Your task to perform on an android device: Set an alarm for 1pm Image 0: 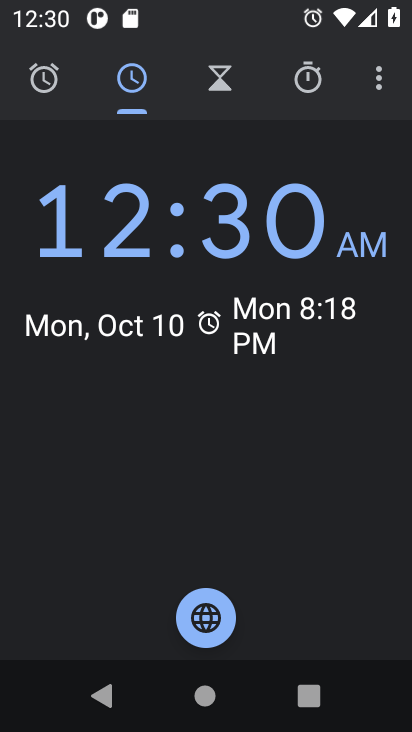
Step 0: click (47, 80)
Your task to perform on an android device: Set an alarm for 1pm Image 1: 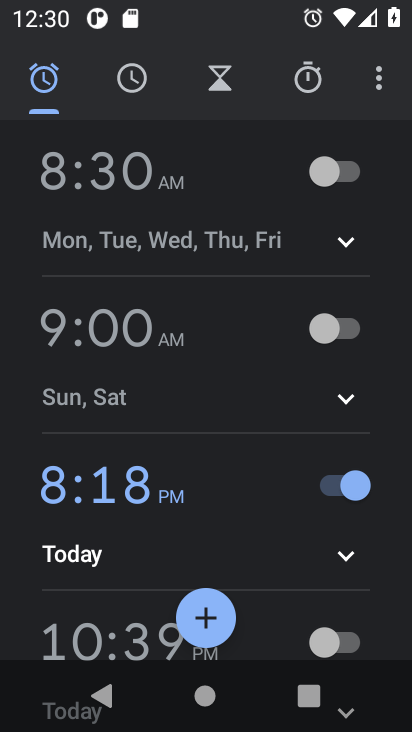
Step 1: click (210, 622)
Your task to perform on an android device: Set an alarm for 1pm Image 2: 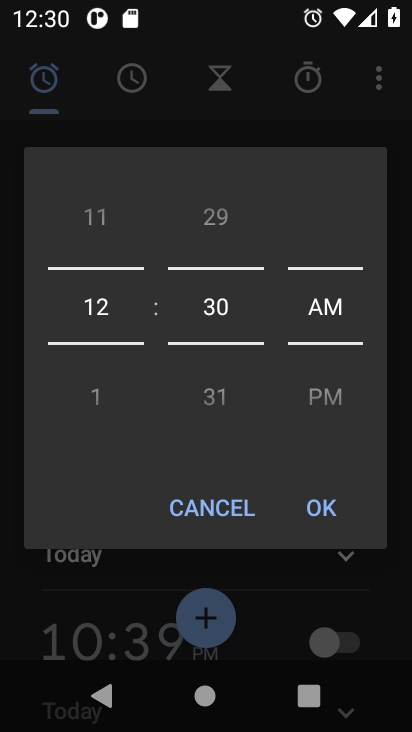
Step 2: drag from (83, 374) to (106, 282)
Your task to perform on an android device: Set an alarm for 1pm Image 3: 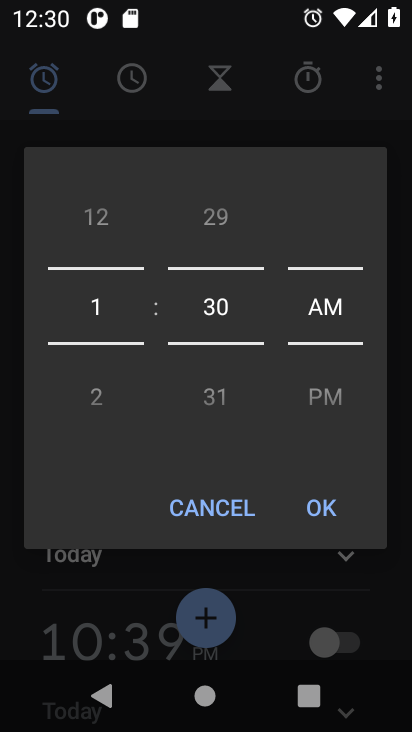
Step 3: drag from (211, 205) to (206, 417)
Your task to perform on an android device: Set an alarm for 1pm Image 4: 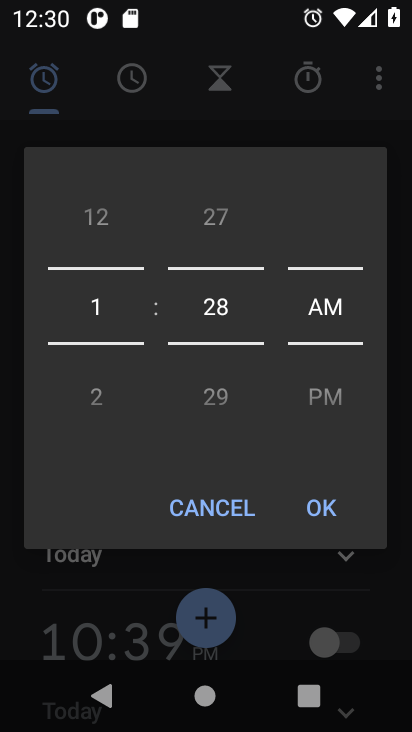
Step 4: drag from (217, 196) to (219, 428)
Your task to perform on an android device: Set an alarm for 1pm Image 5: 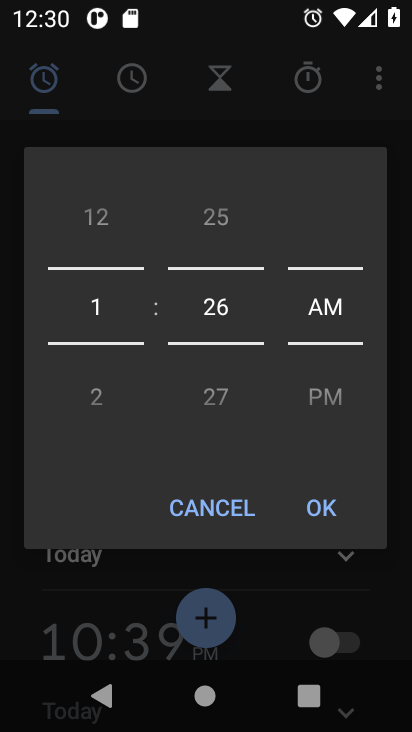
Step 5: drag from (220, 220) to (192, 410)
Your task to perform on an android device: Set an alarm for 1pm Image 6: 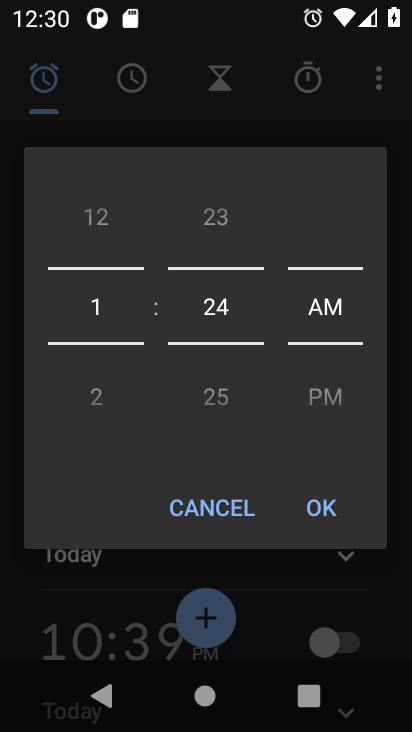
Step 6: drag from (222, 217) to (203, 389)
Your task to perform on an android device: Set an alarm for 1pm Image 7: 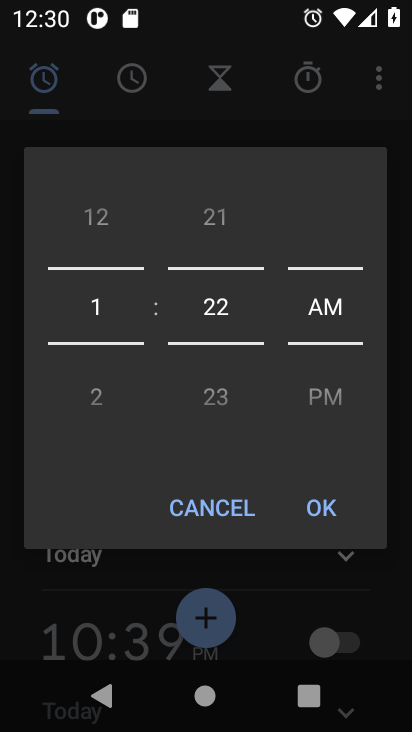
Step 7: drag from (223, 205) to (210, 402)
Your task to perform on an android device: Set an alarm for 1pm Image 8: 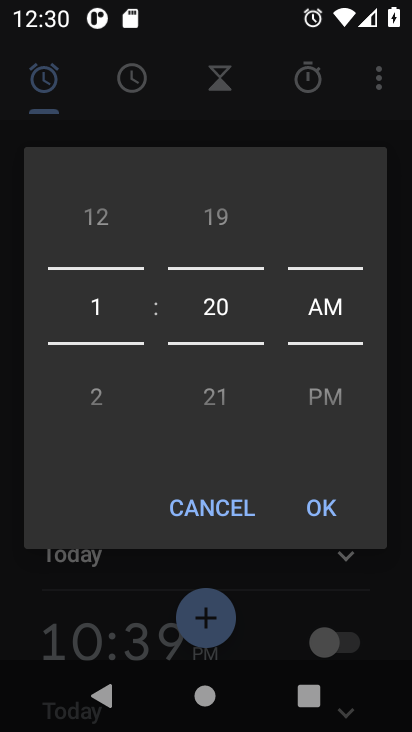
Step 8: drag from (226, 213) to (205, 395)
Your task to perform on an android device: Set an alarm for 1pm Image 9: 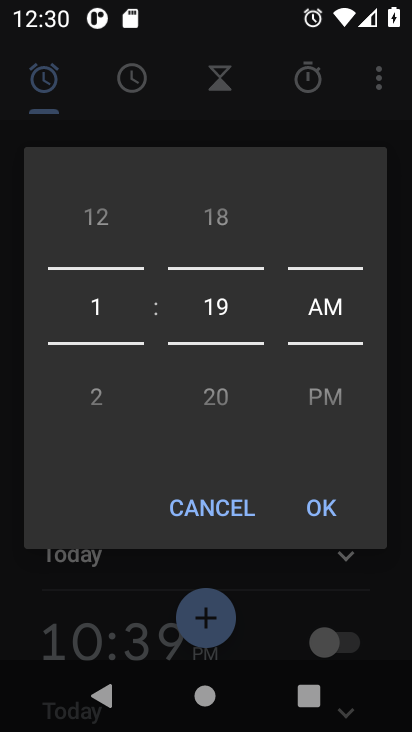
Step 9: drag from (225, 223) to (217, 402)
Your task to perform on an android device: Set an alarm for 1pm Image 10: 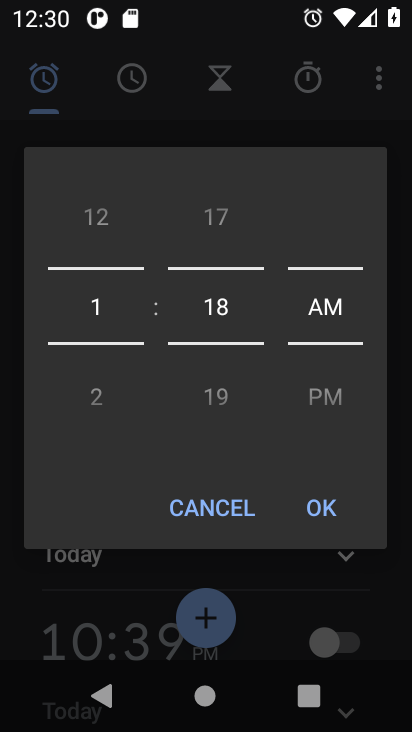
Step 10: drag from (222, 216) to (232, 411)
Your task to perform on an android device: Set an alarm for 1pm Image 11: 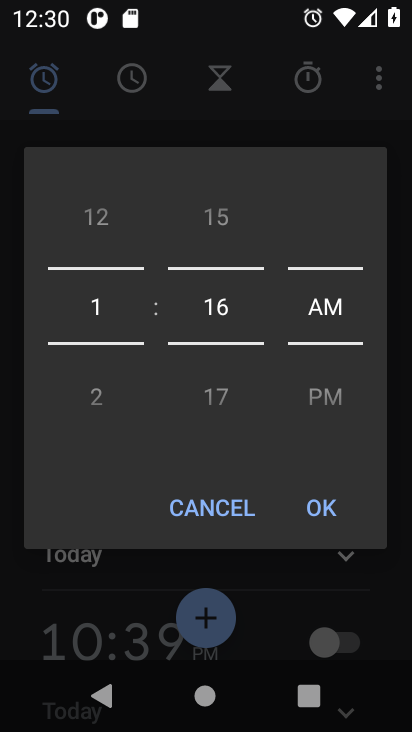
Step 11: drag from (221, 222) to (189, 404)
Your task to perform on an android device: Set an alarm for 1pm Image 12: 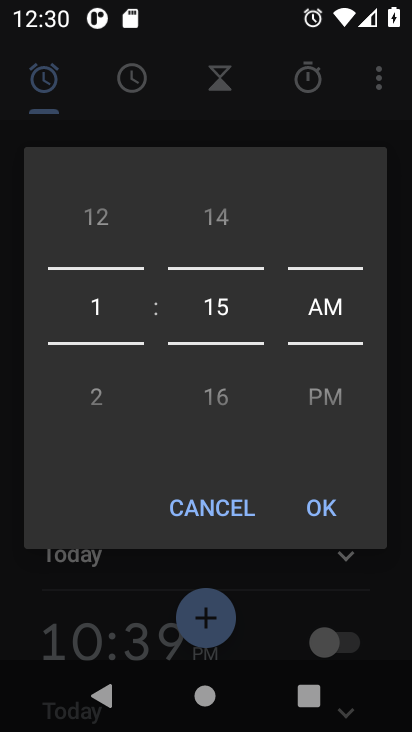
Step 12: drag from (221, 220) to (206, 498)
Your task to perform on an android device: Set an alarm for 1pm Image 13: 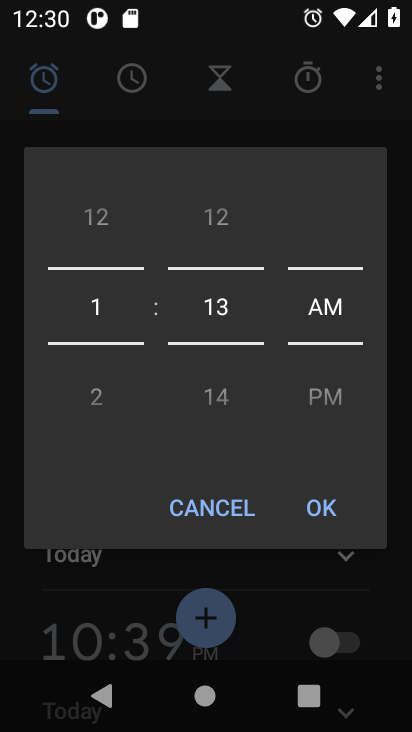
Step 13: drag from (224, 220) to (219, 426)
Your task to perform on an android device: Set an alarm for 1pm Image 14: 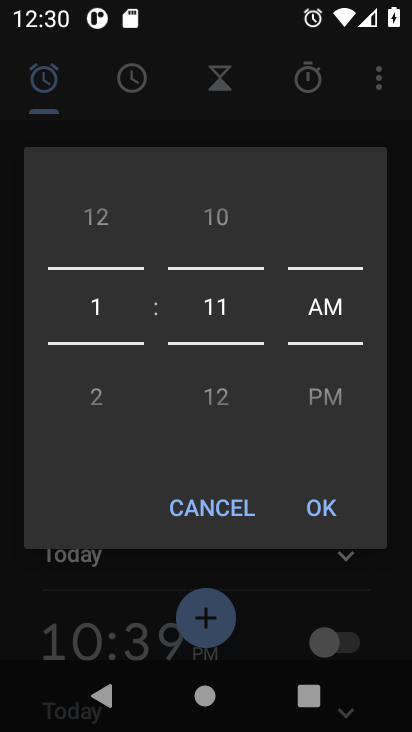
Step 14: drag from (214, 214) to (203, 368)
Your task to perform on an android device: Set an alarm for 1pm Image 15: 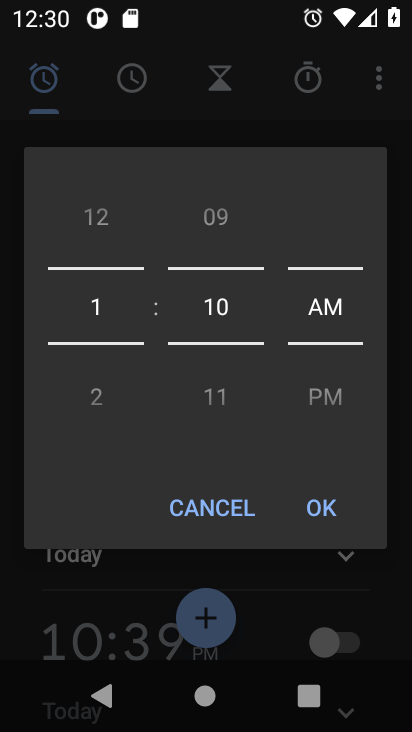
Step 15: drag from (217, 216) to (208, 389)
Your task to perform on an android device: Set an alarm for 1pm Image 16: 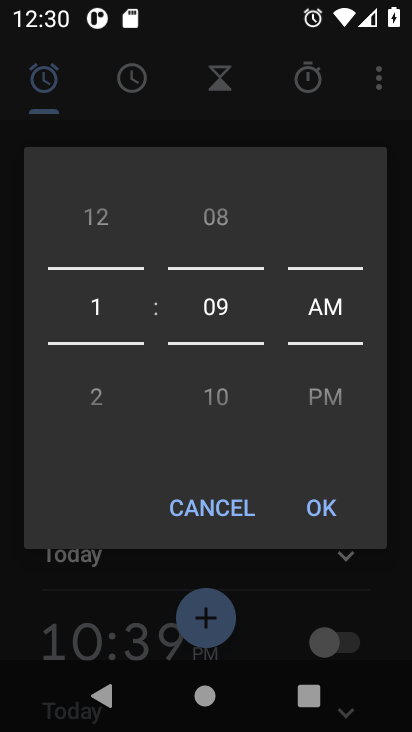
Step 16: drag from (209, 212) to (188, 415)
Your task to perform on an android device: Set an alarm for 1pm Image 17: 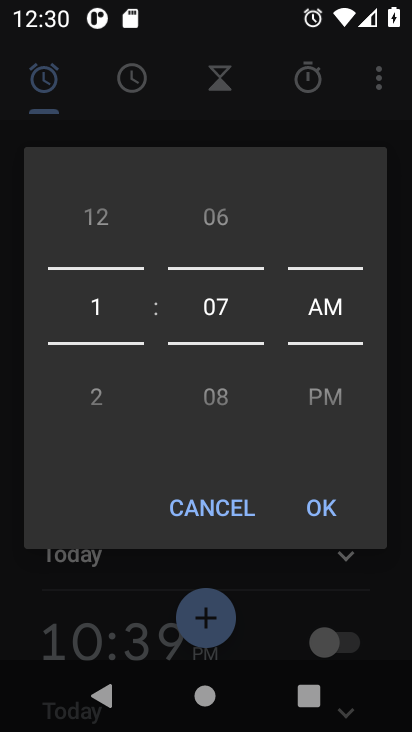
Step 17: drag from (219, 221) to (202, 393)
Your task to perform on an android device: Set an alarm for 1pm Image 18: 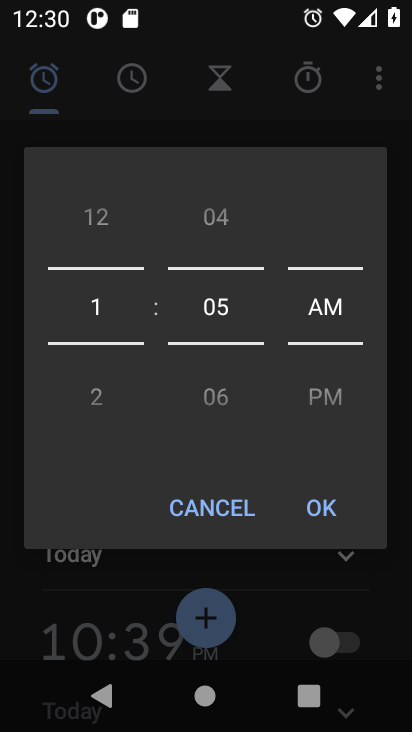
Step 18: drag from (213, 216) to (239, 441)
Your task to perform on an android device: Set an alarm for 1pm Image 19: 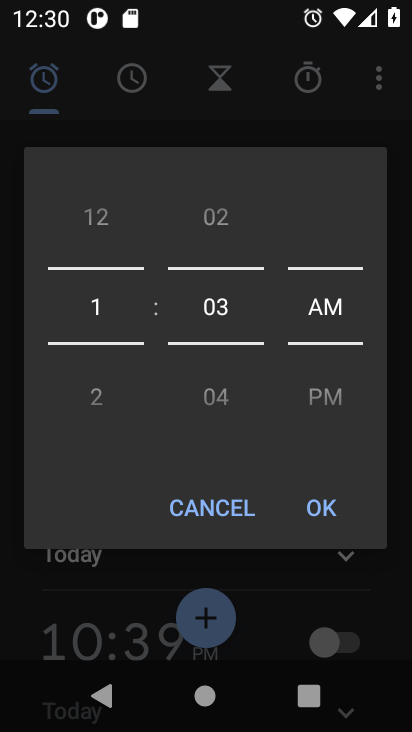
Step 19: drag from (216, 221) to (220, 364)
Your task to perform on an android device: Set an alarm for 1pm Image 20: 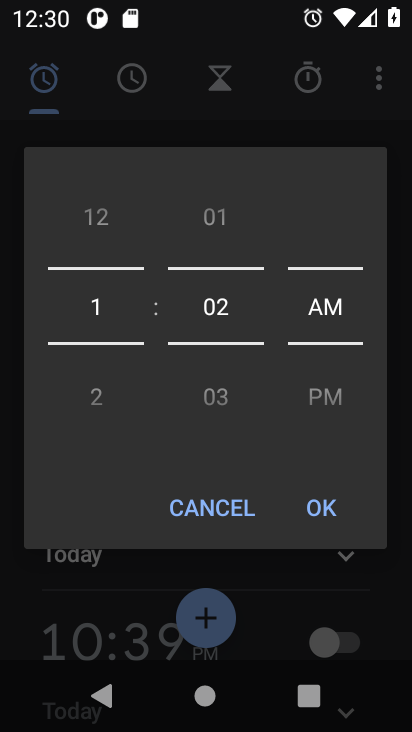
Step 20: drag from (229, 208) to (205, 396)
Your task to perform on an android device: Set an alarm for 1pm Image 21: 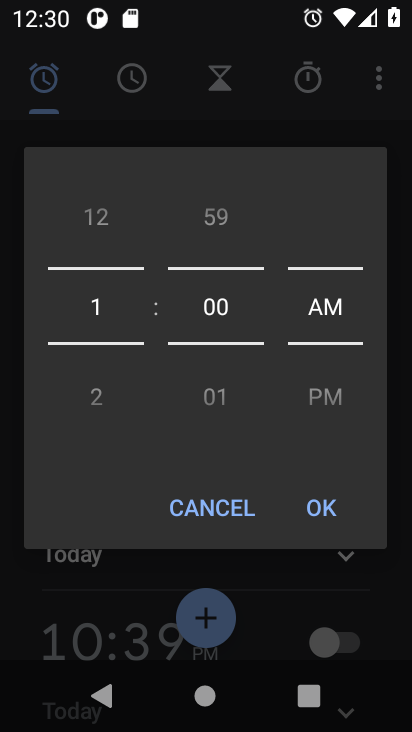
Step 21: drag from (340, 401) to (330, 279)
Your task to perform on an android device: Set an alarm for 1pm Image 22: 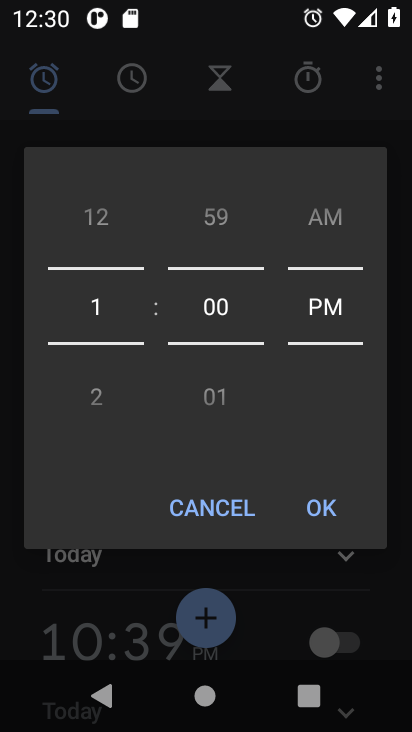
Step 22: click (320, 500)
Your task to perform on an android device: Set an alarm for 1pm Image 23: 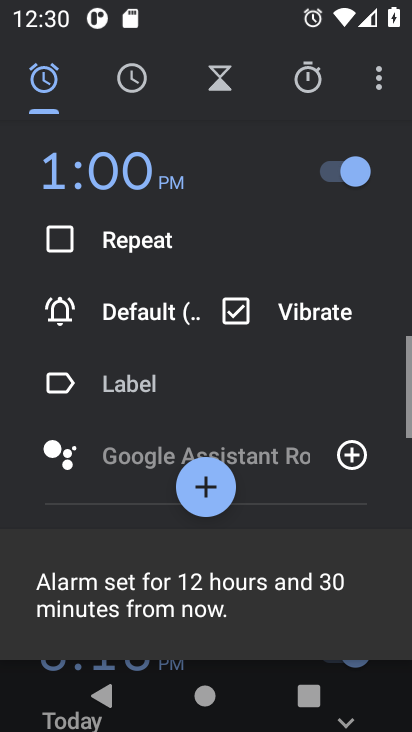
Step 23: task complete